Your task to perform on an android device: Clear the cart on newegg. Search for usb-c to usb-b on newegg, select the first entry, add it to the cart, then select checkout. Image 0: 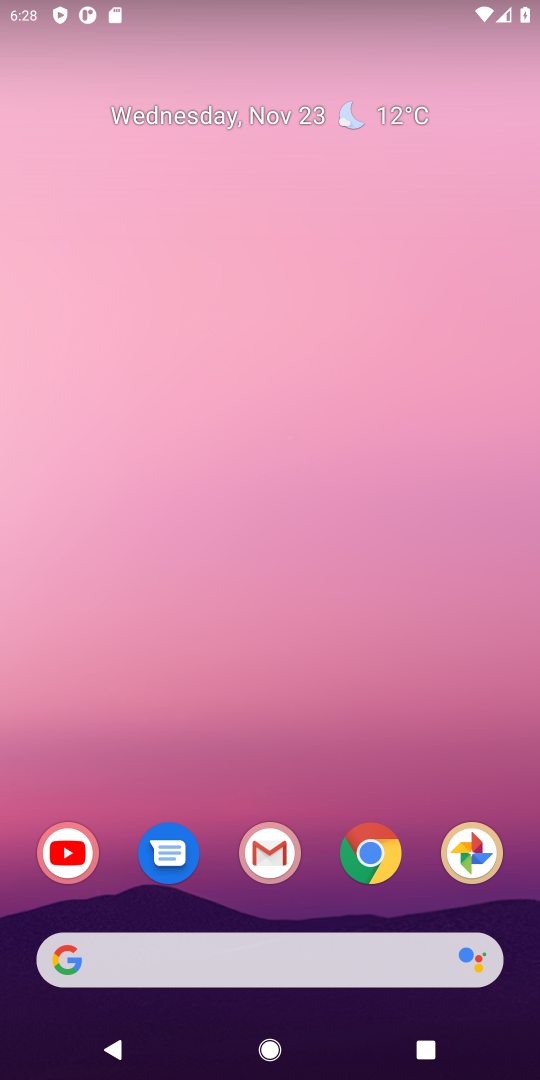
Step 0: click (370, 852)
Your task to perform on an android device: Clear the cart on newegg. Search for usb-c to usb-b on newegg, select the first entry, add it to the cart, then select checkout. Image 1: 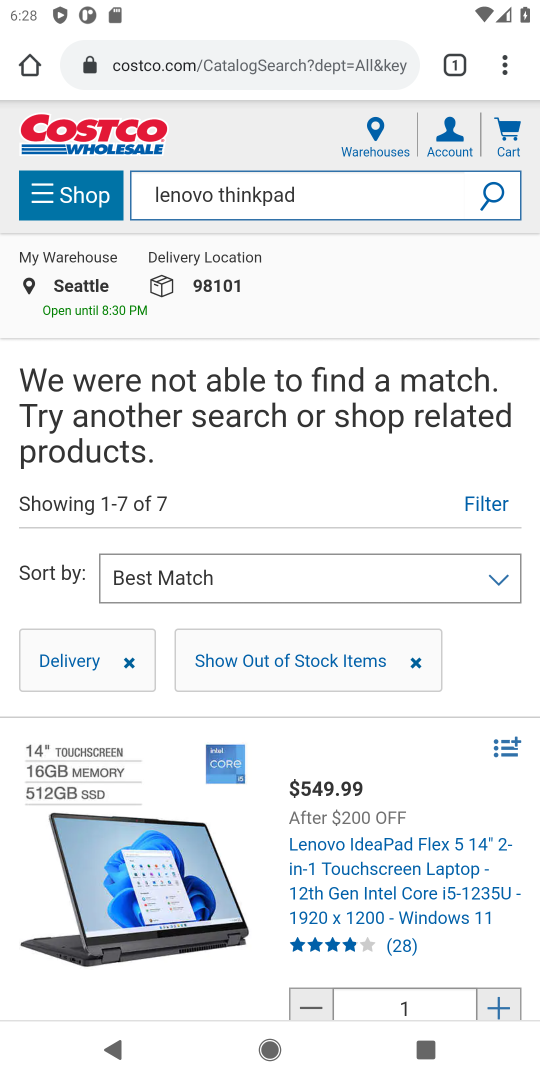
Step 1: click (186, 62)
Your task to perform on an android device: Clear the cart on newegg. Search for usb-c to usb-b on newegg, select the first entry, add it to the cart, then select checkout. Image 2: 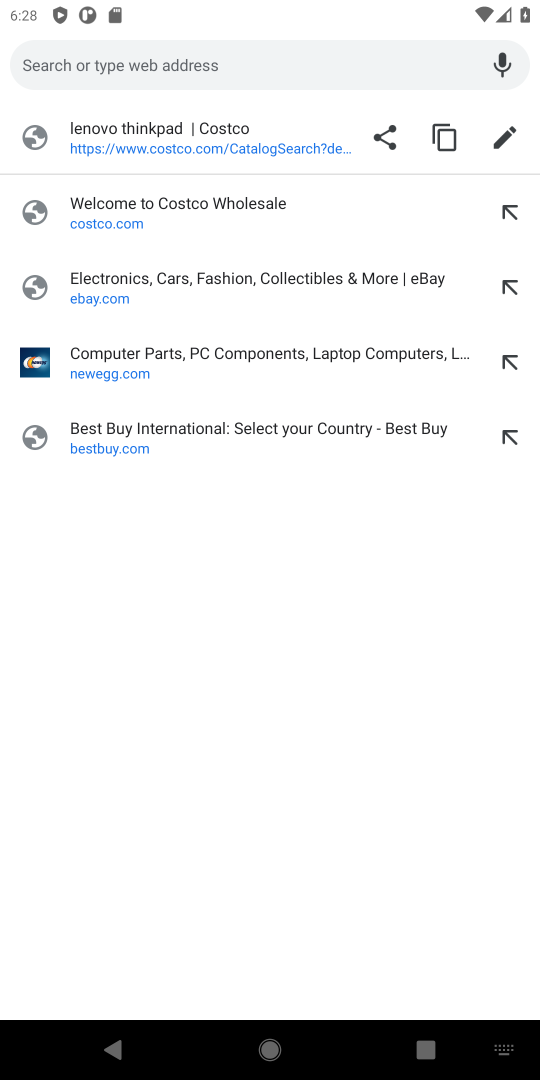
Step 2: click (92, 379)
Your task to perform on an android device: Clear the cart on newegg. Search for usb-c to usb-b on newegg, select the first entry, add it to the cart, then select checkout. Image 3: 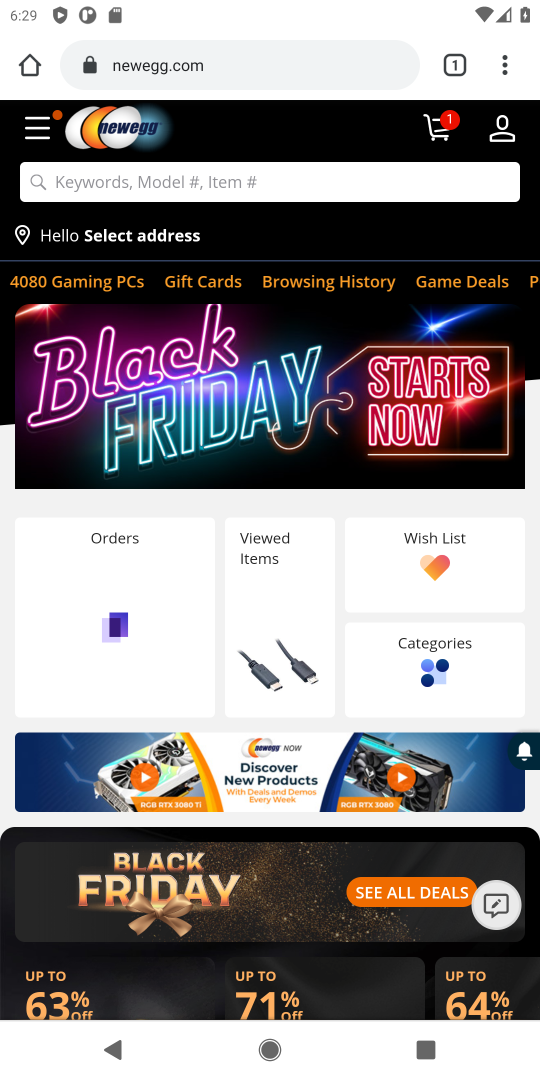
Step 3: click (436, 132)
Your task to perform on an android device: Clear the cart on newegg. Search for usb-c to usb-b on newegg, select the first entry, add it to the cart, then select checkout. Image 4: 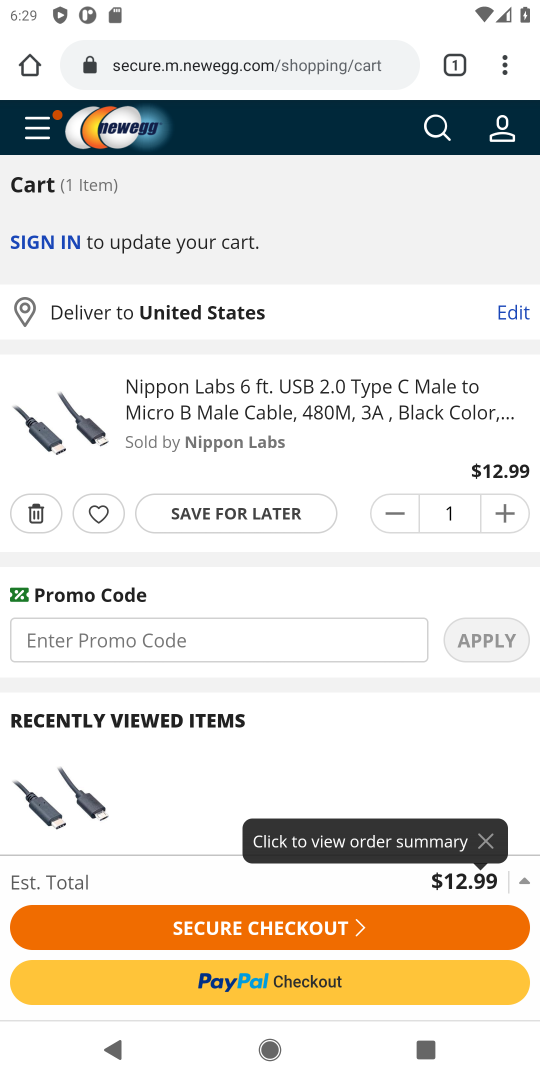
Step 4: click (33, 520)
Your task to perform on an android device: Clear the cart on newegg. Search for usb-c to usb-b on newegg, select the first entry, add it to the cart, then select checkout. Image 5: 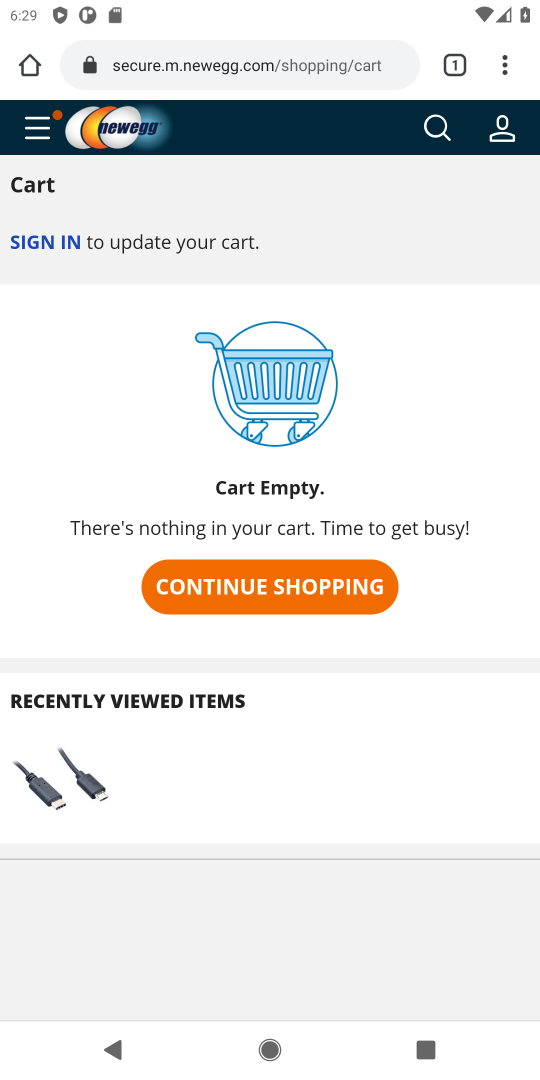
Step 5: click (286, 597)
Your task to perform on an android device: Clear the cart on newegg. Search for usb-c to usb-b on newegg, select the first entry, add it to the cart, then select checkout. Image 6: 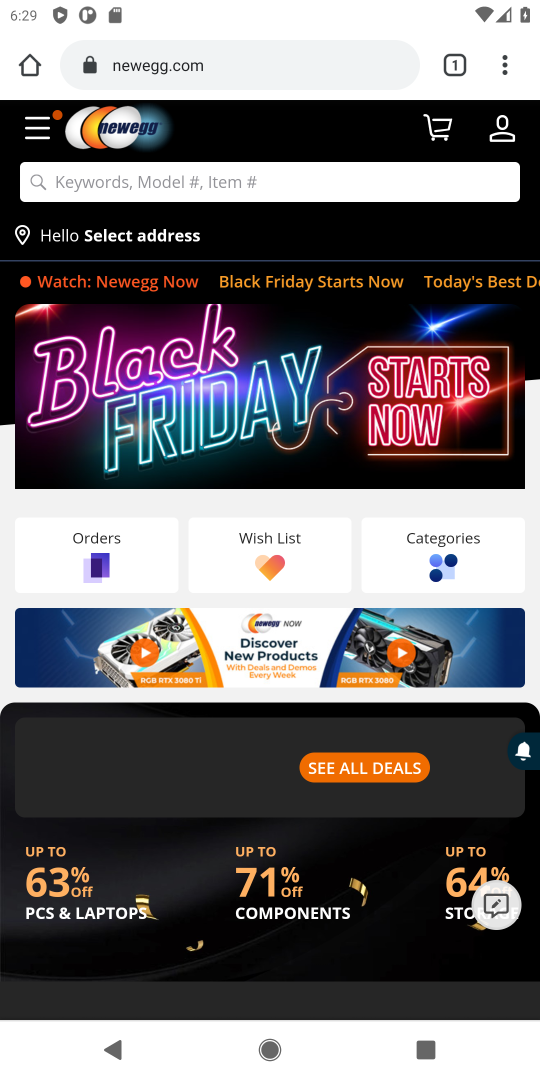
Step 6: click (171, 196)
Your task to perform on an android device: Clear the cart on newegg. Search for usb-c to usb-b on newegg, select the first entry, add it to the cart, then select checkout. Image 7: 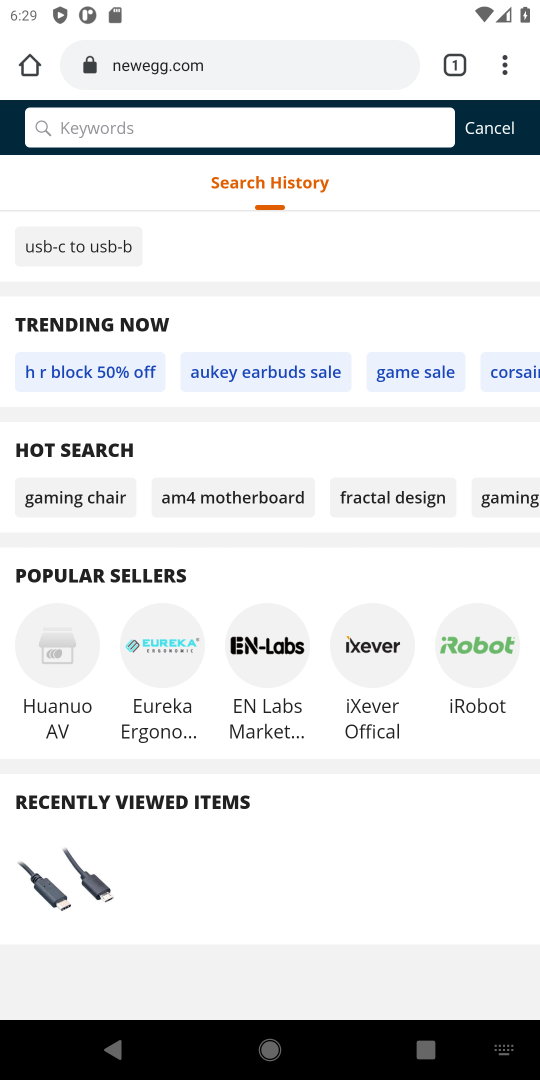
Step 7: type "usb-c to usb-b"
Your task to perform on an android device: Clear the cart on newegg. Search for usb-c to usb-b on newegg, select the first entry, add it to the cart, then select checkout. Image 8: 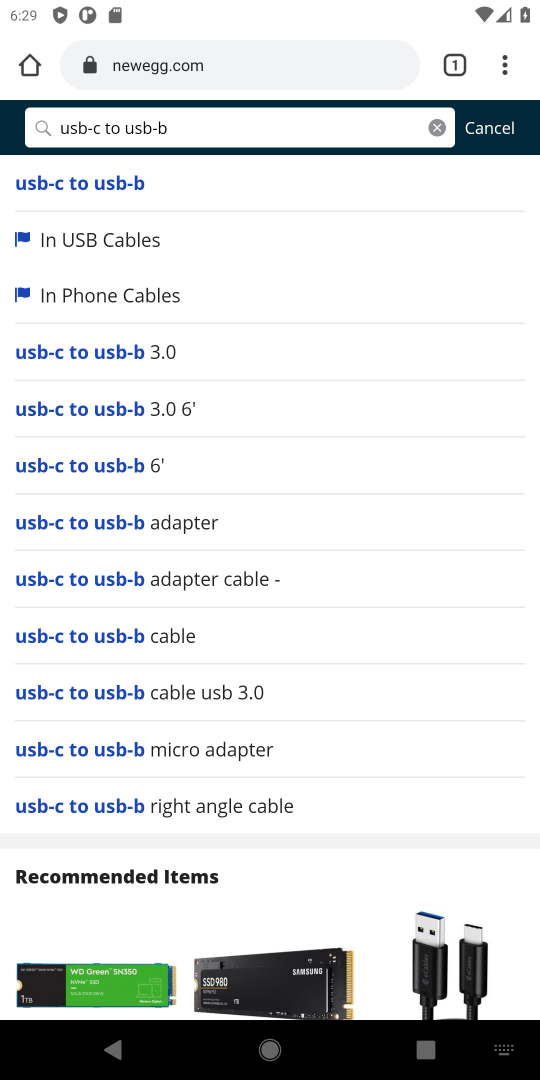
Step 8: click (118, 193)
Your task to perform on an android device: Clear the cart on newegg. Search for usb-c to usb-b on newegg, select the first entry, add it to the cart, then select checkout. Image 9: 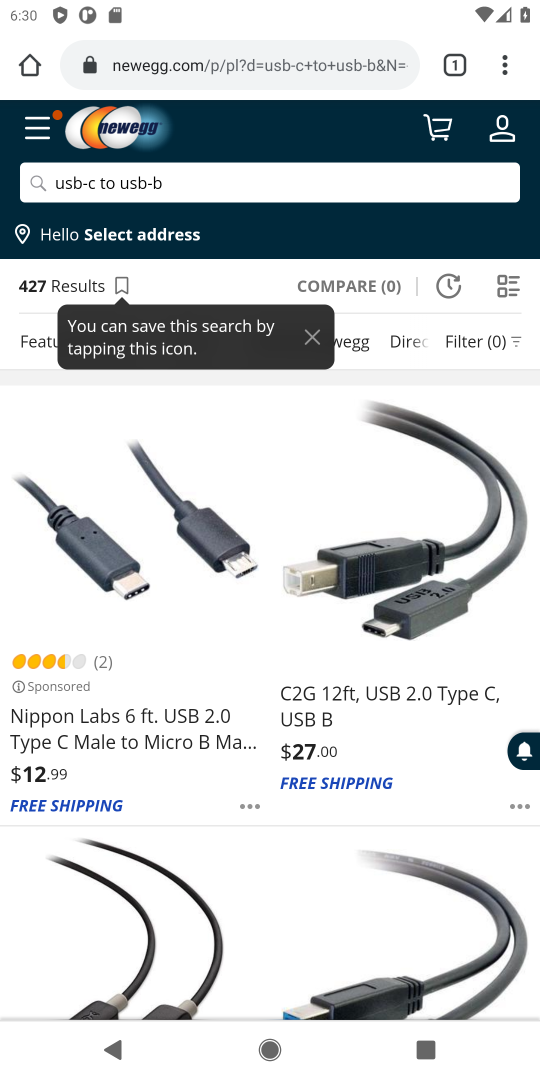
Step 9: click (96, 611)
Your task to perform on an android device: Clear the cart on newegg. Search for usb-c to usb-b on newegg, select the first entry, add it to the cart, then select checkout. Image 10: 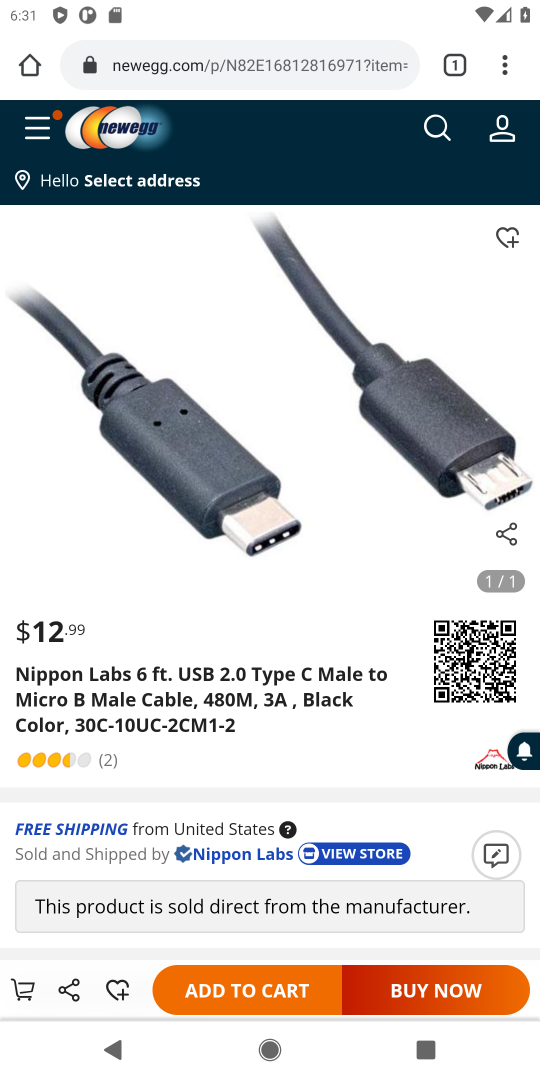
Step 10: click (261, 983)
Your task to perform on an android device: Clear the cart on newegg. Search for usb-c to usb-b on newegg, select the first entry, add it to the cart, then select checkout. Image 11: 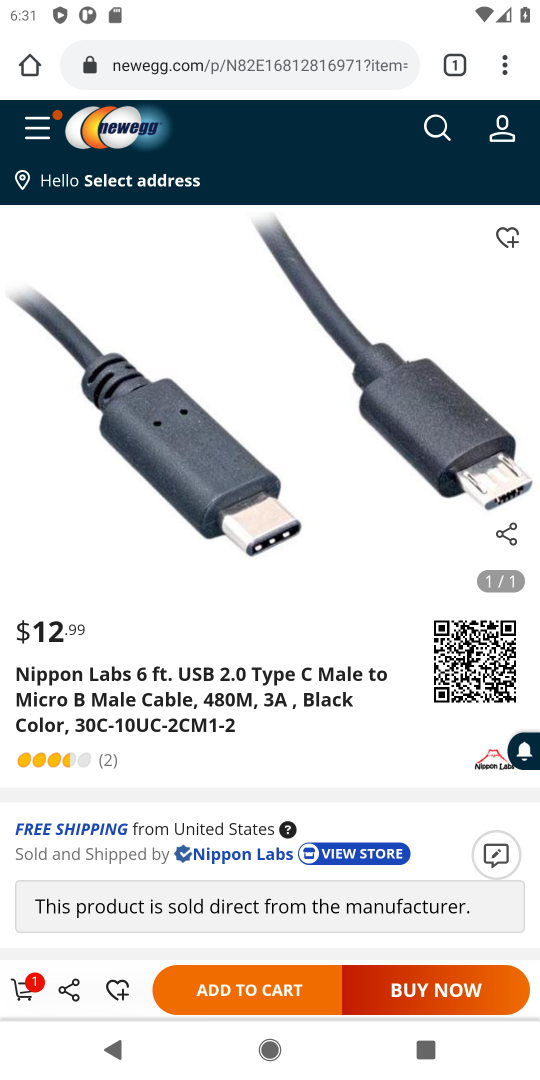
Step 11: click (28, 996)
Your task to perform on an android device: Clear the cart on newegg. Search for usb-c to usb-b on newegg, select the first entry, add it to the cart, then select checkout. Image 12: 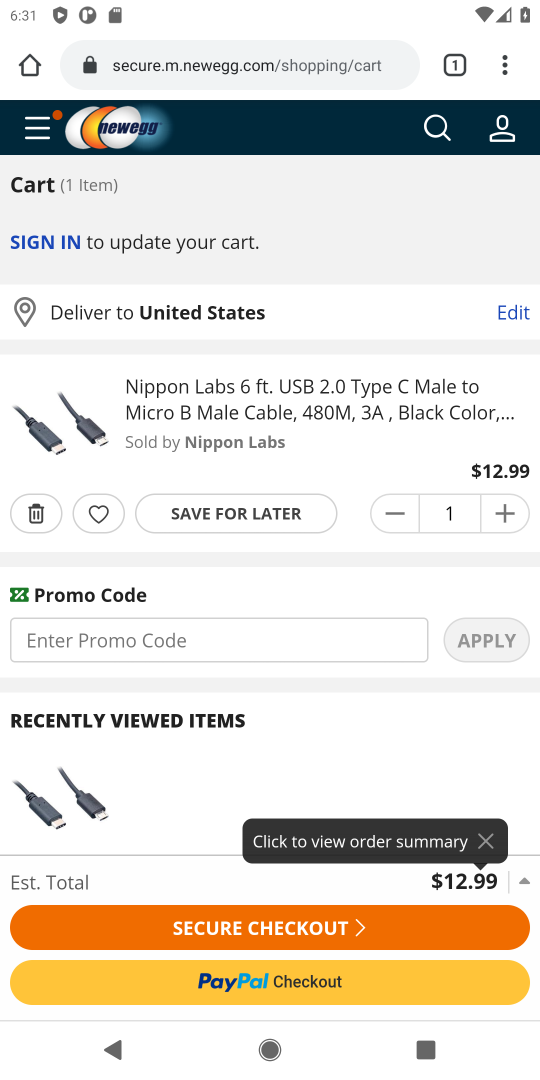
Step 12: click (218, 929)
Your task to perform on an android device: Clear the cart on newegg. Search for usb-c to usb-b on newegg, select the first entry, add it to the cart, then select checkout. Image 13: 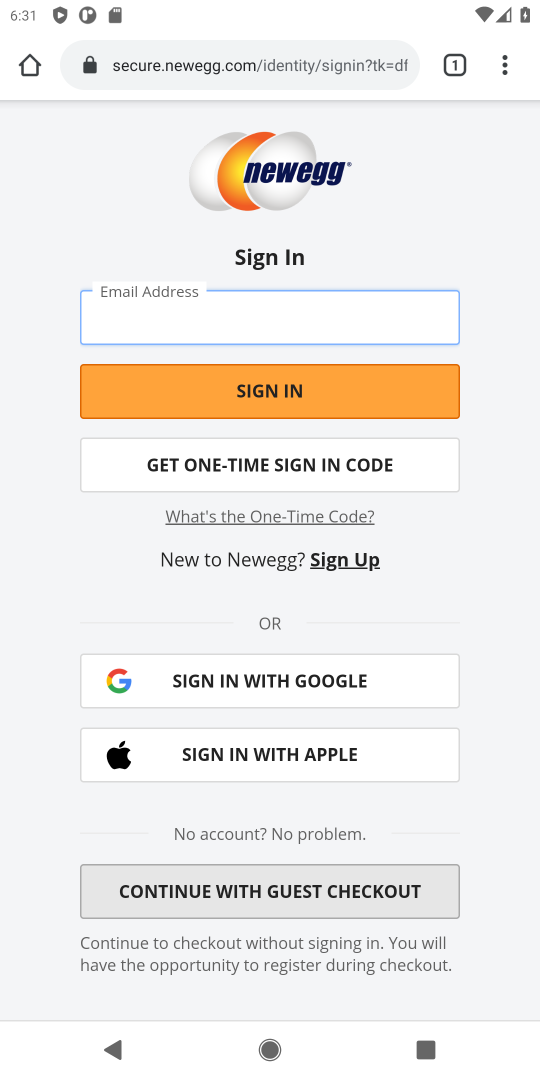
Step 13: task complete